Your task to perform on an android device: find which apps use the phone's location Image 0: 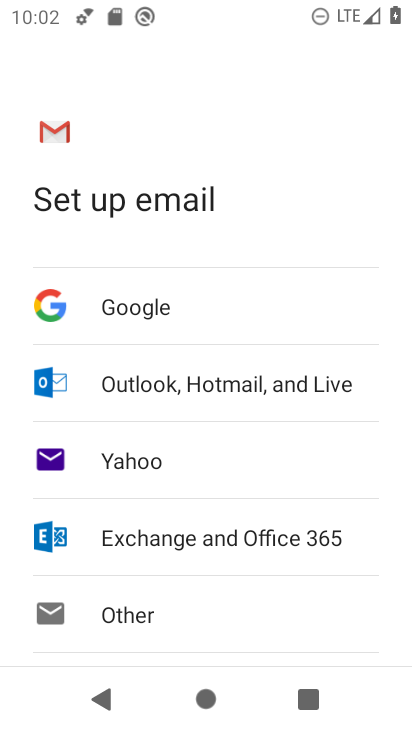
Step 0: press home button
Your task to perform on an android device: find which apps use the phone's location Image 1: 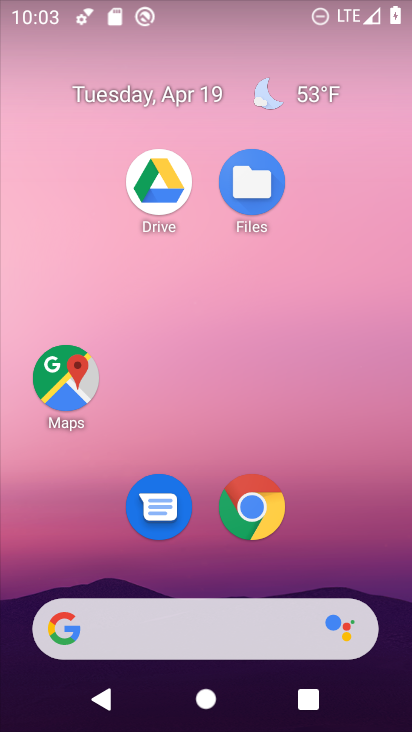
Step 1: drag from (357, 335) to (361, 131)
Your task to perform on an android device: find which apps use the phone's location Image 2: 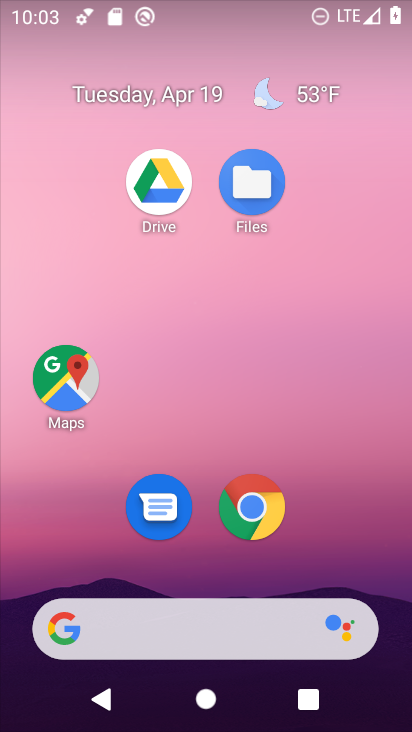
Step 2: drag from (323, 497) to (335, 45)
Your task to perform on an android device: find which apps use the phone's location Image 3: 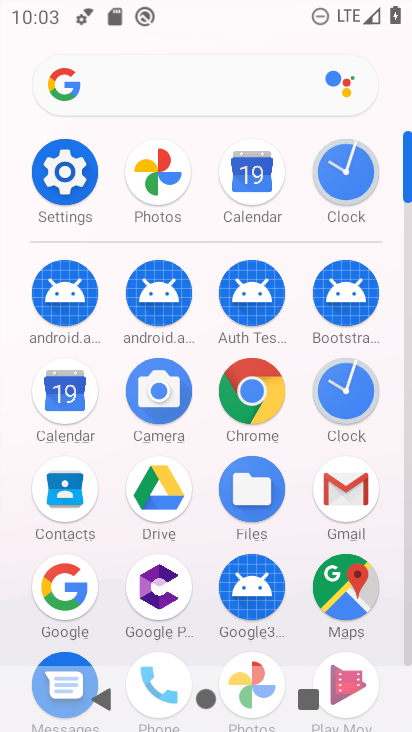
Step 3: click (67, 172)
Your task to perform on an android device: find which apps use the phone's location Image 4: 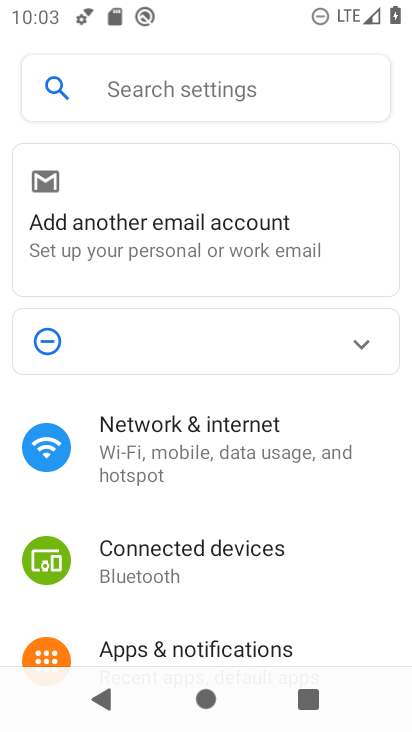
Step 4: drag from (221, 595) to (214, 167)
Your task to perform on an android device: find which apps use the phone's location Image 5: 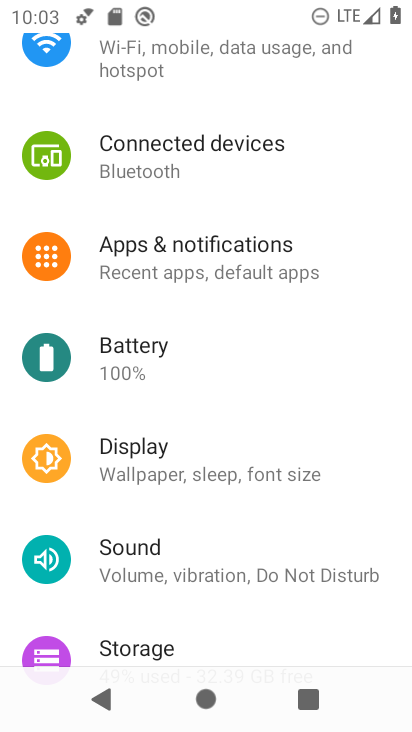
Step 5: drag from (227, 504) to (234, 110)
Your task to perform on an android device: find which apps use the phone's location Image 6: 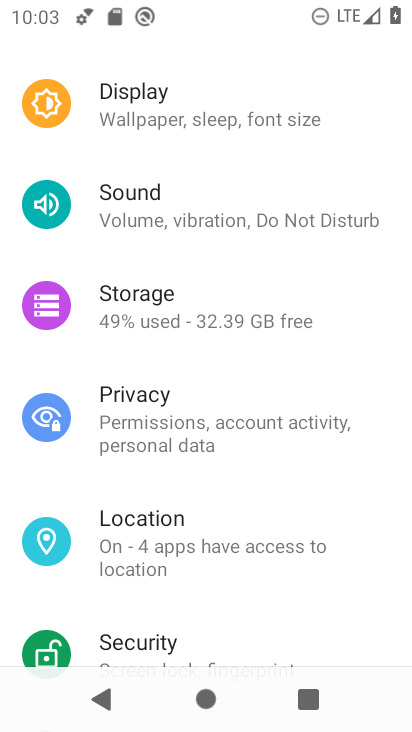
Step 6: click (221, 540)
Your task to perform on an android device: find which apps use the phone's location Image 7: 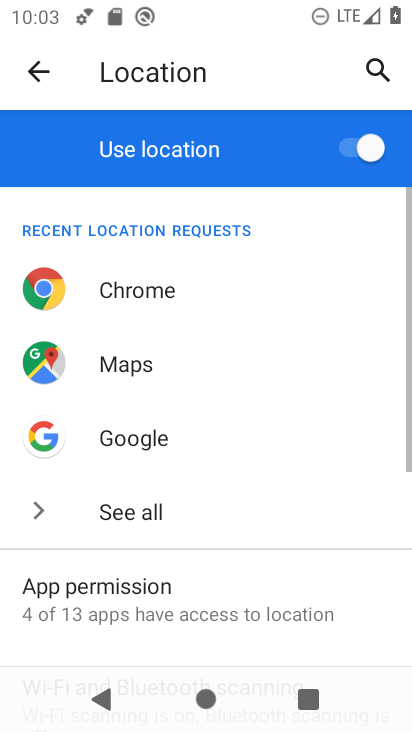
Step 7: click (238, 586)
Your task to perform on an android device: find which apps use the phone's location Image 8: 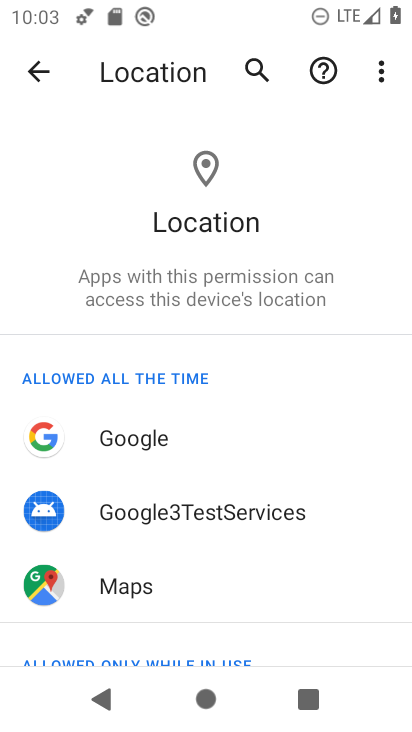
Step 8: task complete